Your task to perform on an android device: turn off notifications settings in the gmail app Image 0: 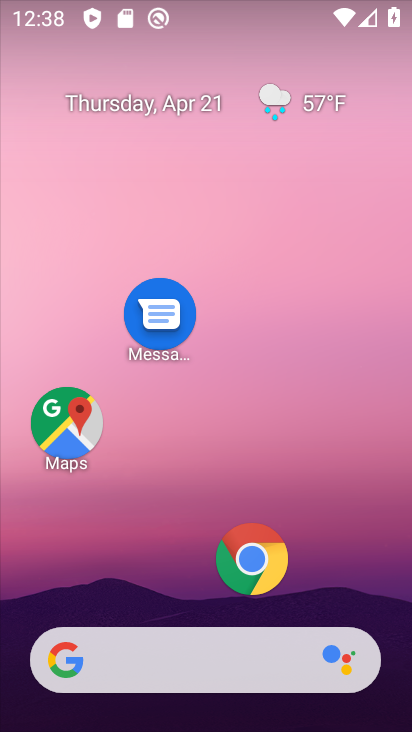
Step 0: drag from (197, 608) to (293, 93)
Your task to perform on an android device: turn off notifications settings in the gmail app Image 1: 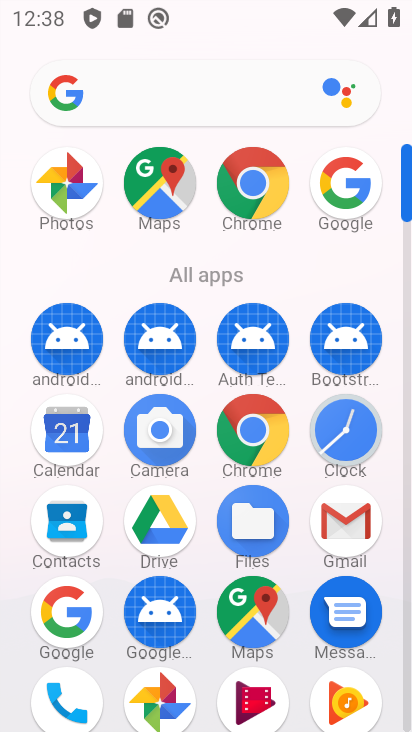
Step 1: click (336, 537)
Your task to perform on an android device: turn off notifications settings in the gmail app Image 2: 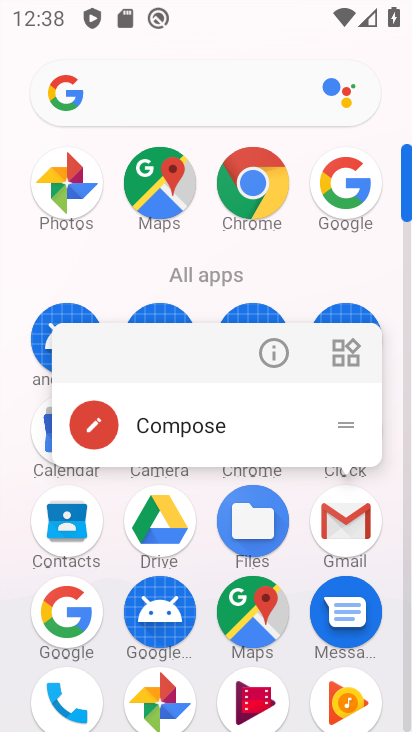
Step 2: click (346, 517)
Your task to perform on an android device: turn off notifications settings in the gmail app Image 3: 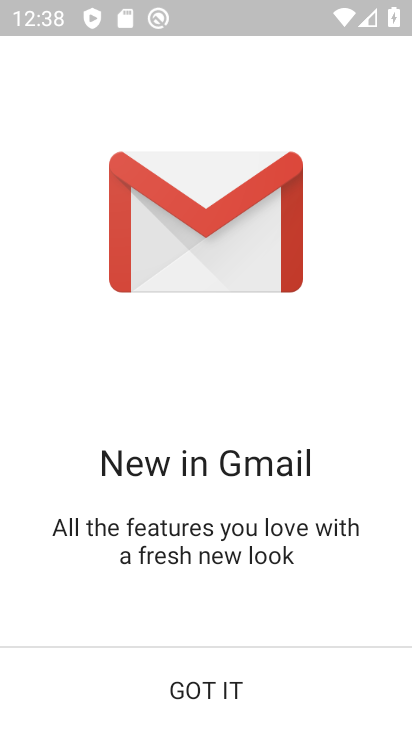
Step 3: click (214, 680)
Your task to perform on an android device: turn off notifications settings in the gmail app Image 4: 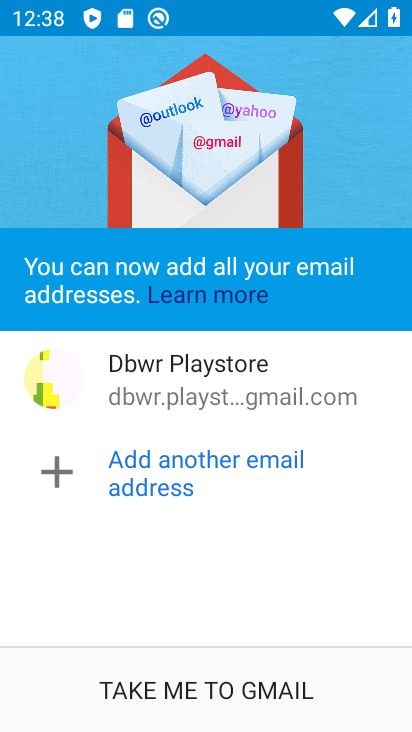
Step 4: click (206, 695)
Your task to perform on an android device: turn off notifications settings in the gmail app Image 5: 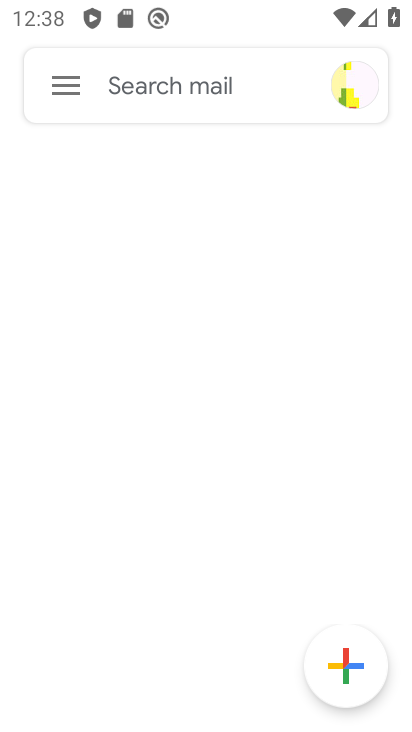
Step 5: click (63, 78)
Your task to perform on an android device: turn off notifications settings in the gmail app Image 6: 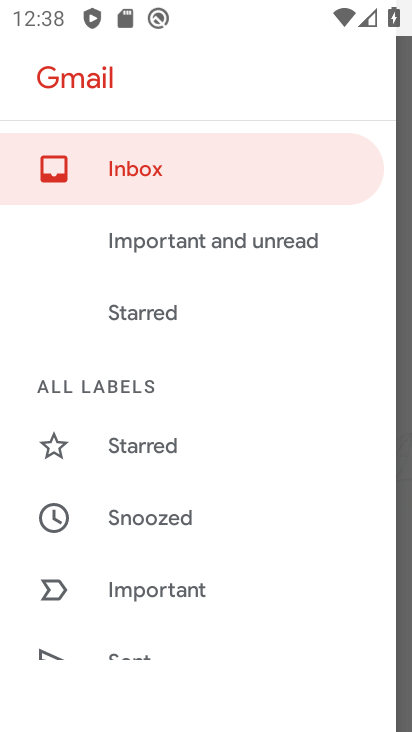
Step 6: drag from (183, 630) to (199, 294)
Your task to perform on an android device: turn off notifications settings in the gmail app Image 7: 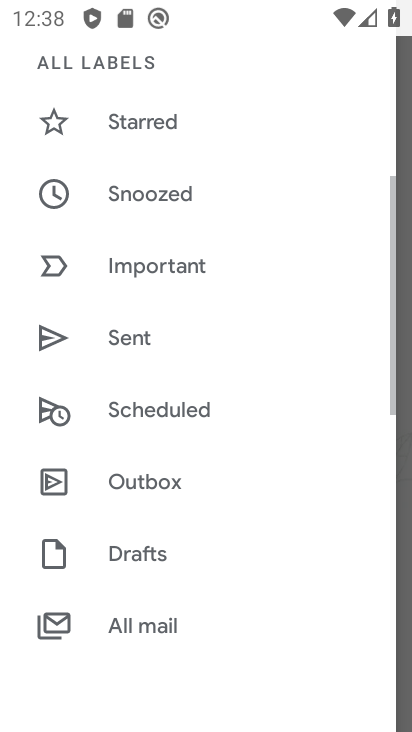
Step 7: drag from (171, 625) to (191, 293)
Your task to perform on an android device: turn off notifications settings in the gmail app Image 8: 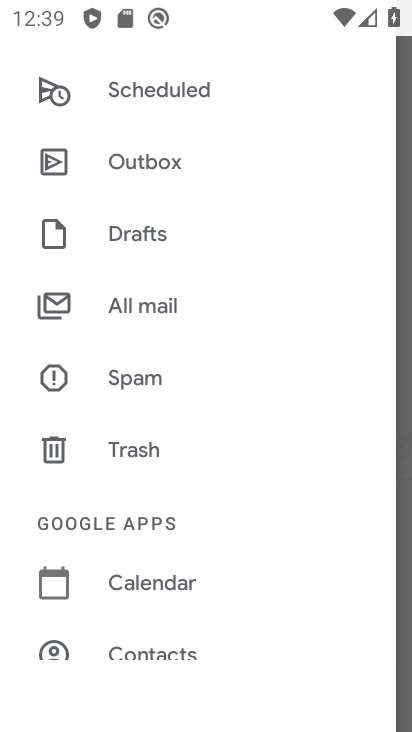
Step 8: drag from (196, 564) to (230, 348)
Your task to perform on an android device: turn off notifications settings in the gmail app Image 9: 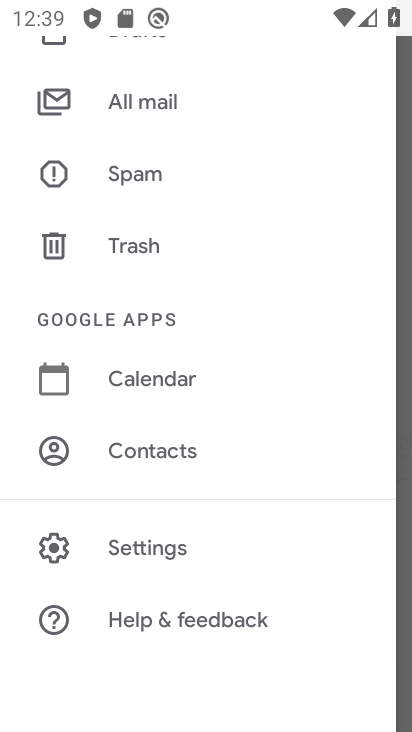
Step 9: click (158, 549)
Your task to perform on an android device: turn off notifications settings in the gmail app Image 10: 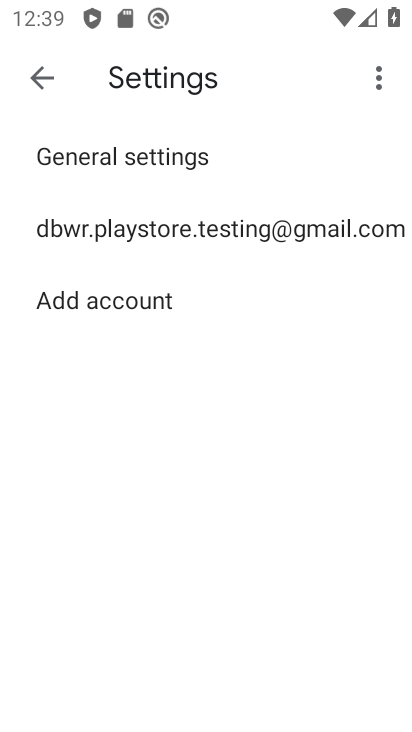
Step 10: click (98, 154)
Your task to perform on an android device: turn off notifications settings in the gmail app Image 11: 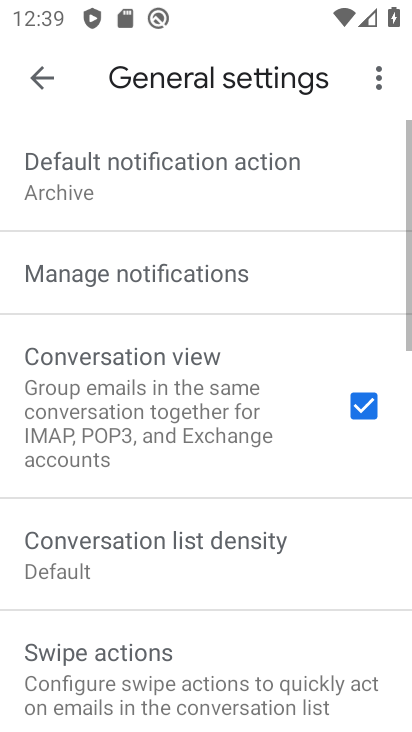
Step 11: click (103, 273)
Your task to perform on an android device: turn off notifications settings in the gmail app Image 12: 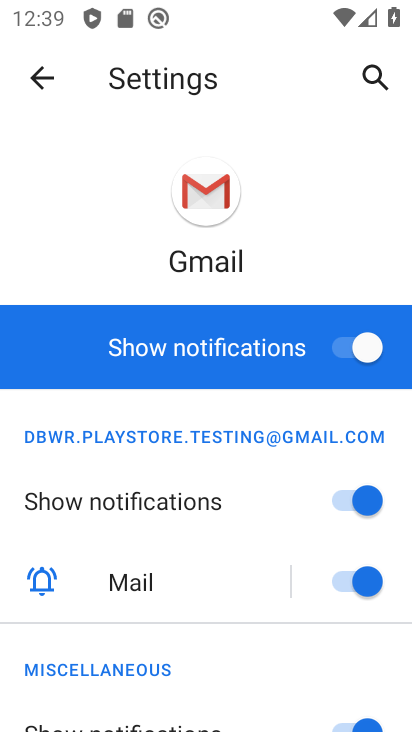
Step 12: click (332, 346)
Your task to perform on an android device: turn off notifications settings in the gmail app Image 13: 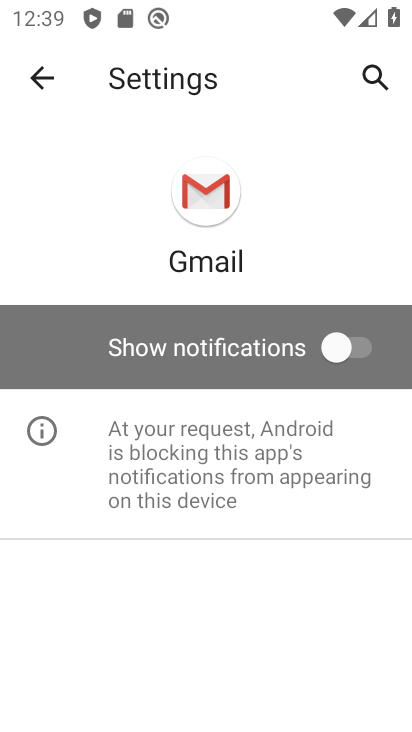
Step 13: task complete